Your task to perform on an android device: Go to Yahoo.com Image 0: 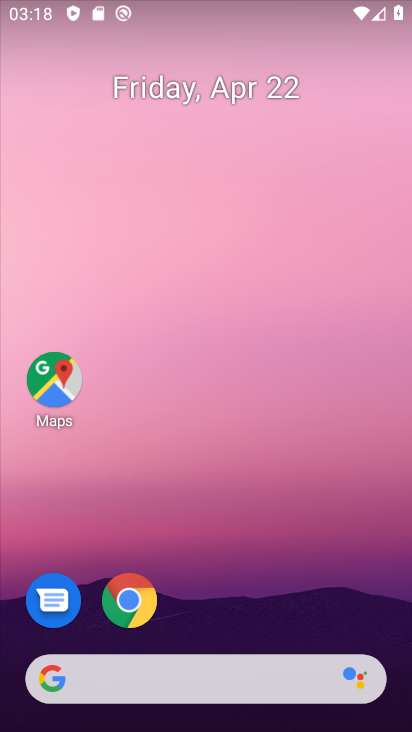
Step 0: click (236, 117)
Your task to perform on an android device: Go to Yahoo.com Image 1: 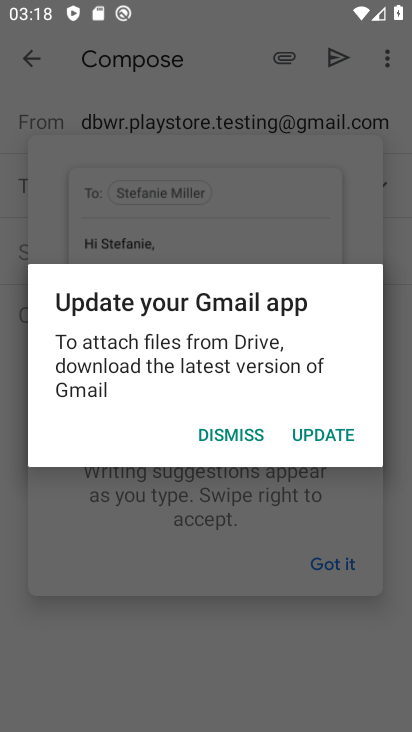
Step 1: press home button
Your task to perform on an android device: Go to Yahoo.com Image 2: 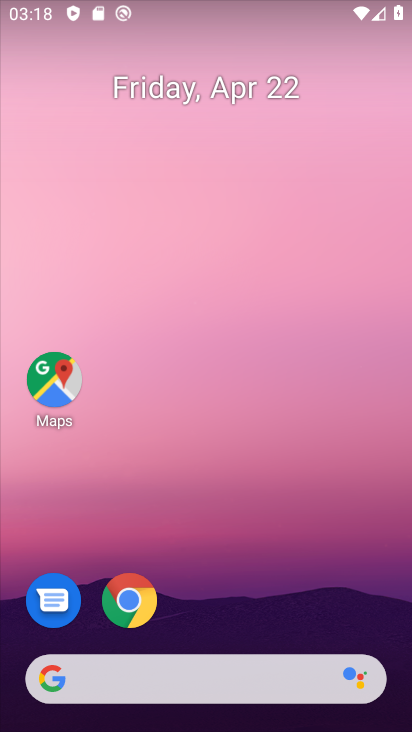
Step 2: click (132, 609)
Your task to perform on an android device: Go to Yahoo.com Image 3: 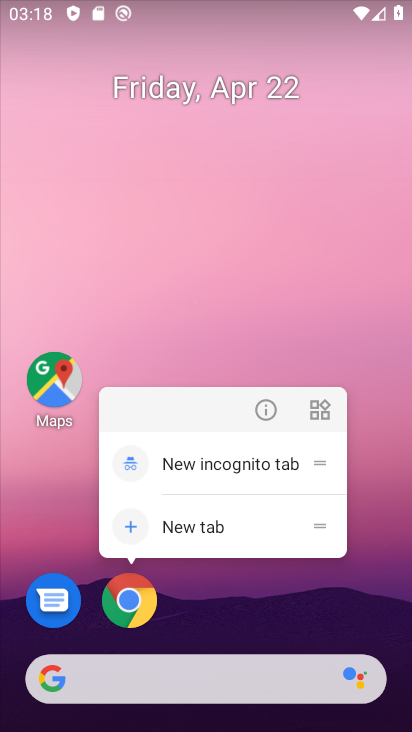
Step 3: click (125, 592)
Your task to perform on an android device: Go to Yahoo.com Image 4: 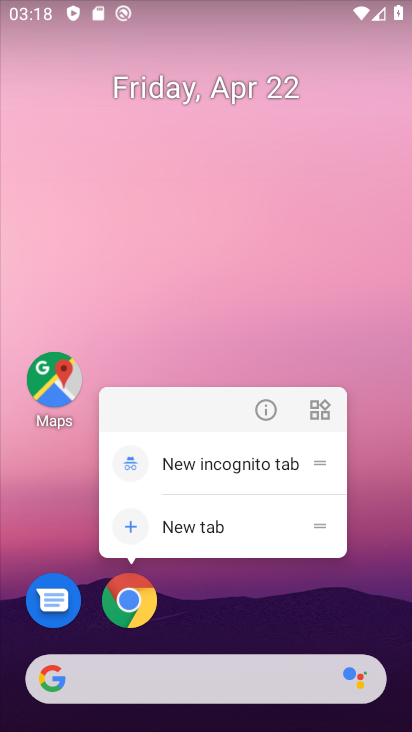
Step 4: click (130, 610)
Your task to perform on an android device: Go to Yahoo.com Image 5: 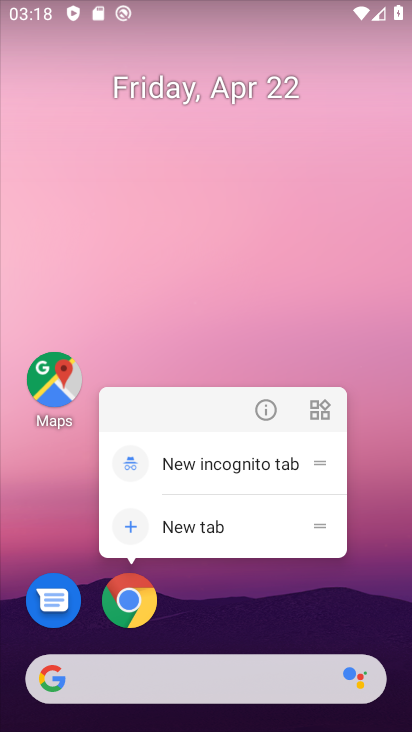
Step 5: click (130, 609)
Your task to perform on an android device: Go to Yahoo.com Image 6: 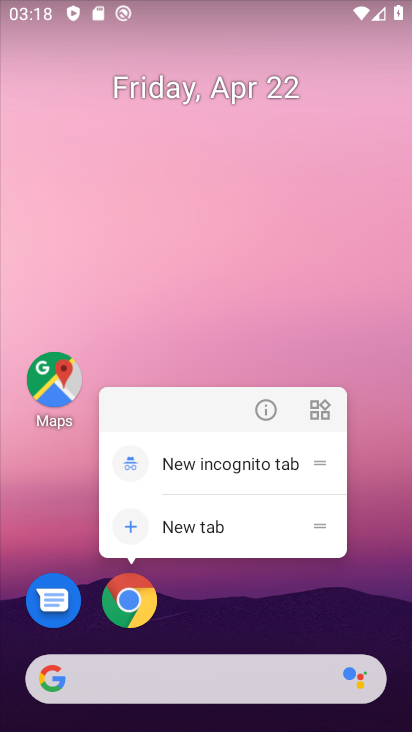
Step 6: click (140, 620)
Your task to perform on an android device: Go to Yahoo.com Image 7: 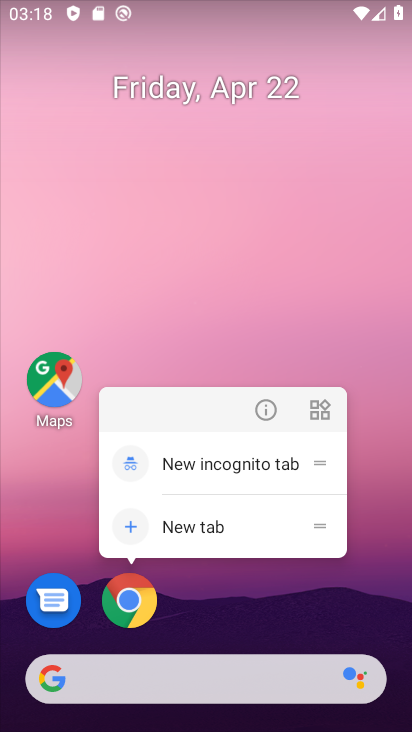
Step 7: click (122, 603)
Your task to perform on an android device: Go to Yahoo.com Image 8: 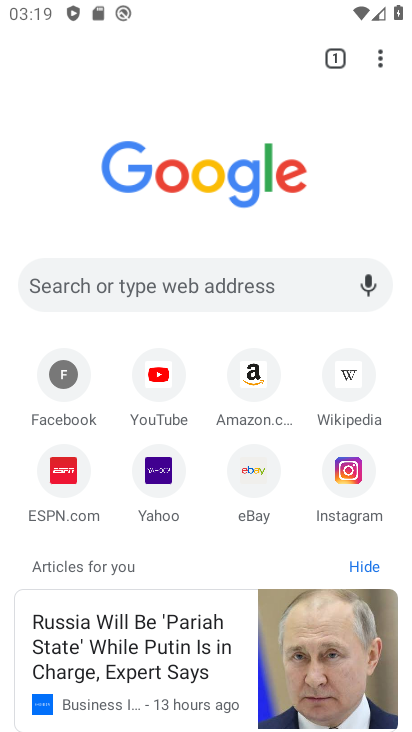
Step 8: click (169, 490)
Your task to perform on an android device: Go to Yahoo.com Image 9: 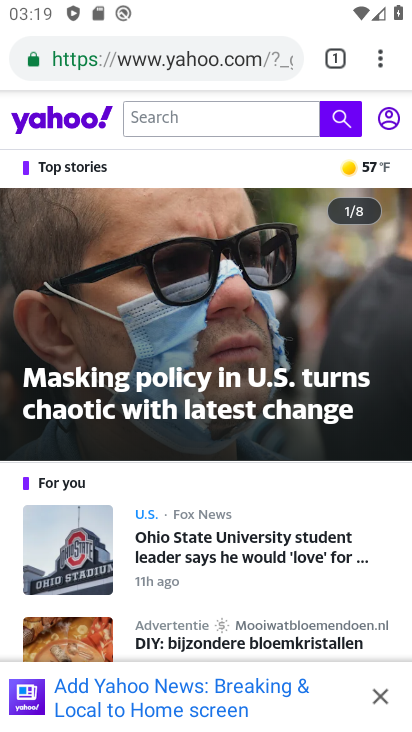
Step 9: task complete